Your task to perform on an android device: Show me recent news Image 0: 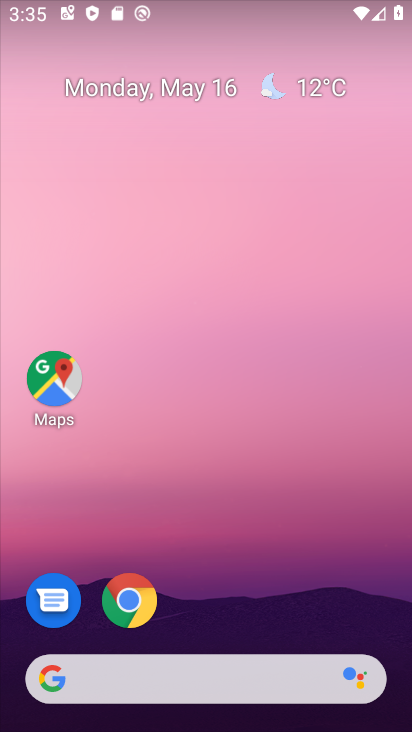
Step 0: drag from (149, 647) to (142, 228)
Your task to perform on an android device: Show me recent news Image 1: 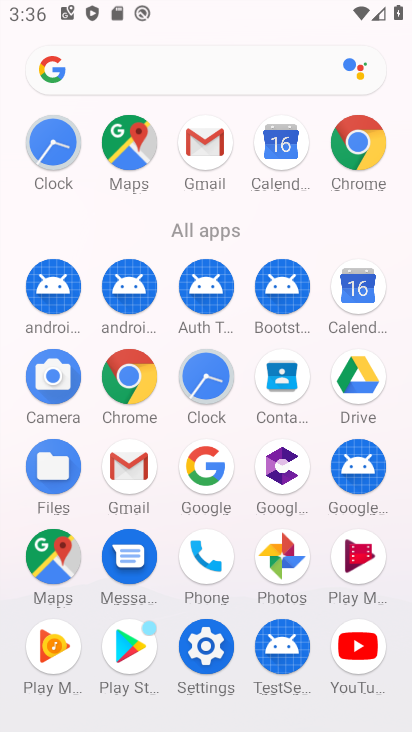
Step 1: click (198, 477)
Your task to perform on an android device: Show me recent news Image 2: 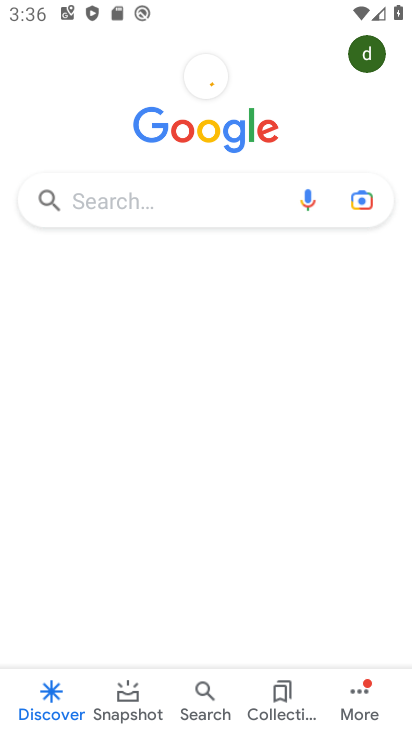
Step 2: click (105, 207)
Your task to perform on an android device: Show me recent news Image 3: 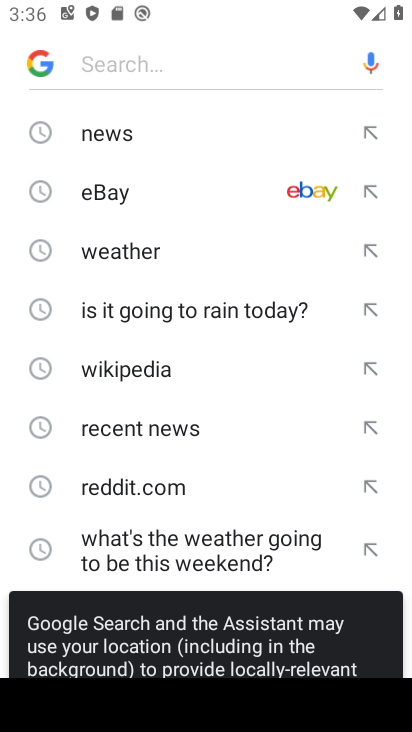
Step 3: click (128, 432)
Your task to perform on an android device: Show me recent news Image 4: 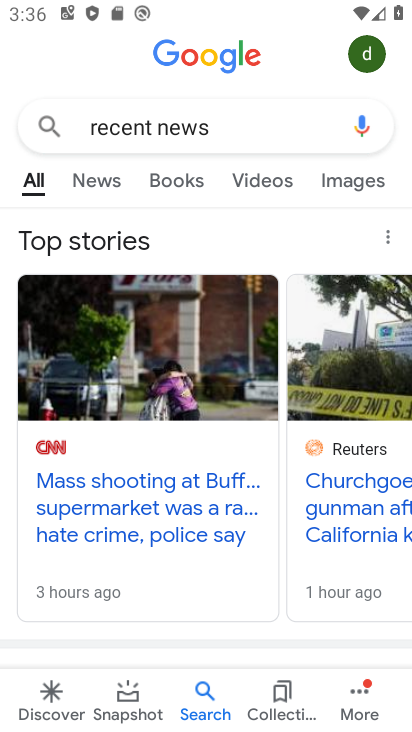
Step 4: task complete